Your task to perform on an android device: toggle pop-ups in chrome Image 0: 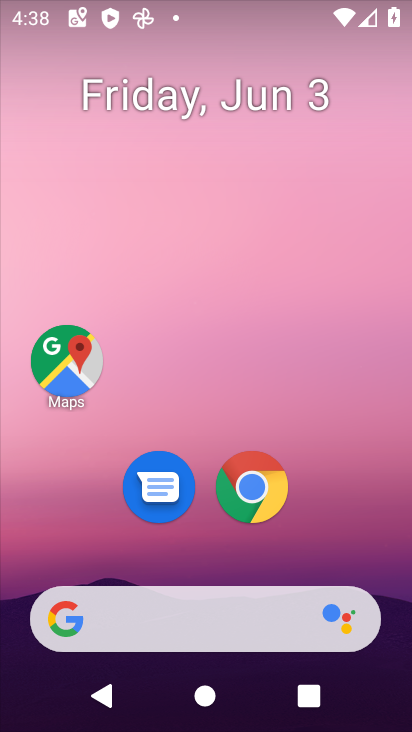
Step 0: click (322, 88)
Your task to perform on an android device: toggle pop-ups in chrome Image 1: 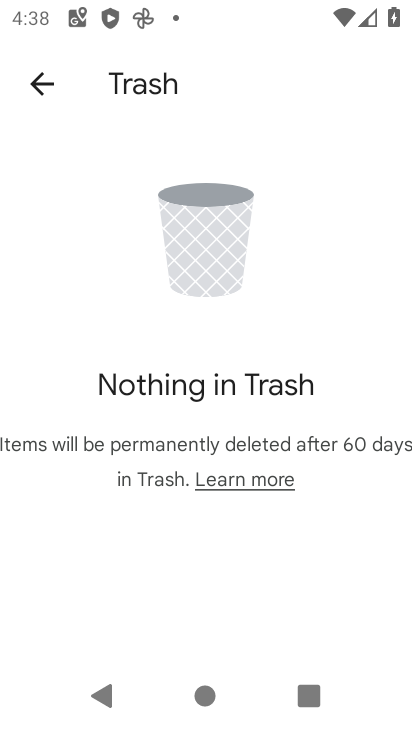
Step 1: drag from (203, 569) to (251, 238)
Your task to perform on an android device: toggle pop-ups in chrome Image 2: 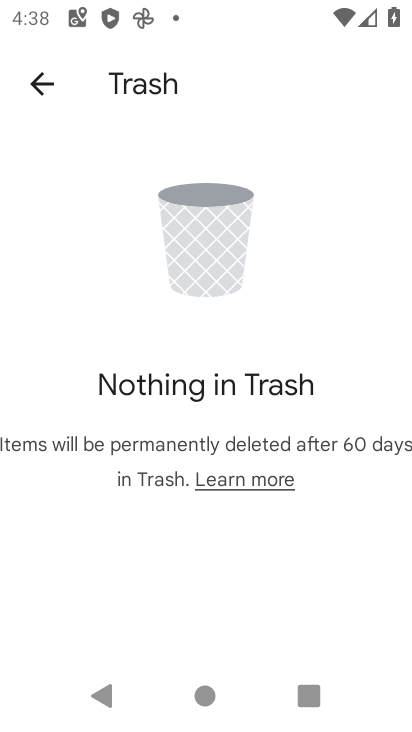
Step 2: press home button
Your task to perform on an android device: toggle pop-ups in chrome Image 3: 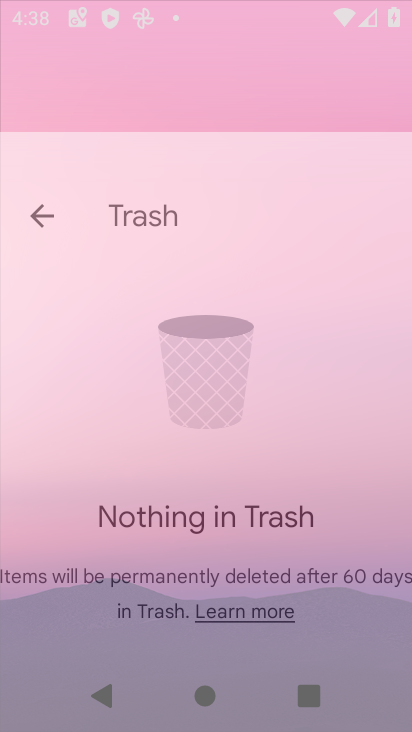
Step 3: drag from (245, 539) to (306, 91)
Your task to perform on an android device: toggle pop-ups in chrome Image 4: 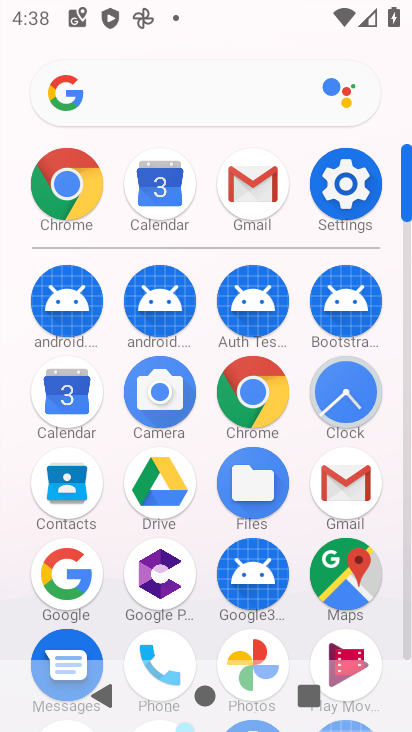
Step 4: click (78, 187)
Your task to perform on an android device: toggle pop-ups in chrome Image 5: 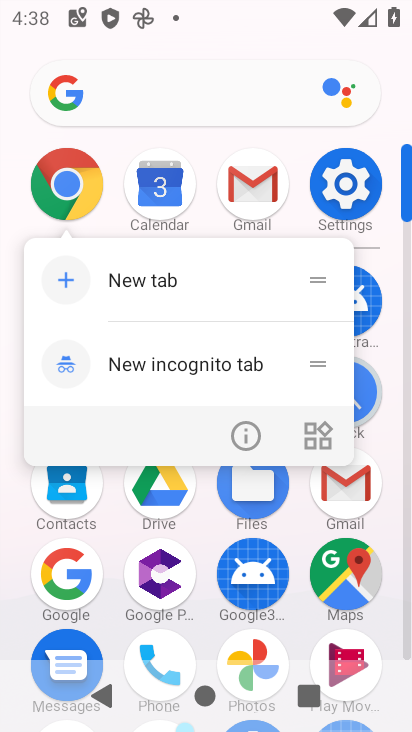
Step 5: click (243, 448)
Your task to perform on an android device: toggle pop-ups in chrome Image 6: 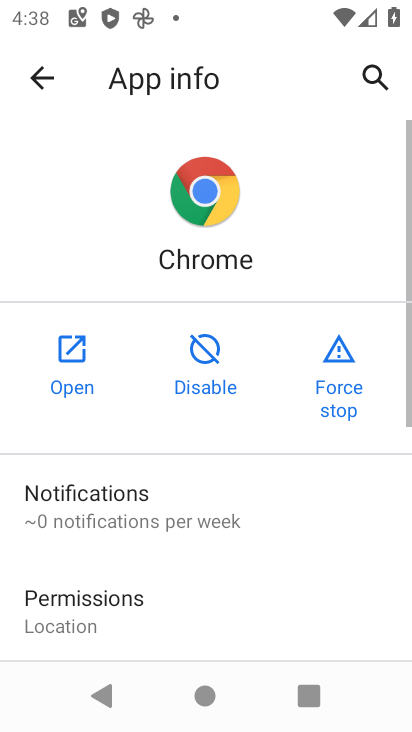
Step 6: click (75, 331)
Your task to perform on an android device: toggle pop-ups in chrome Image 7: 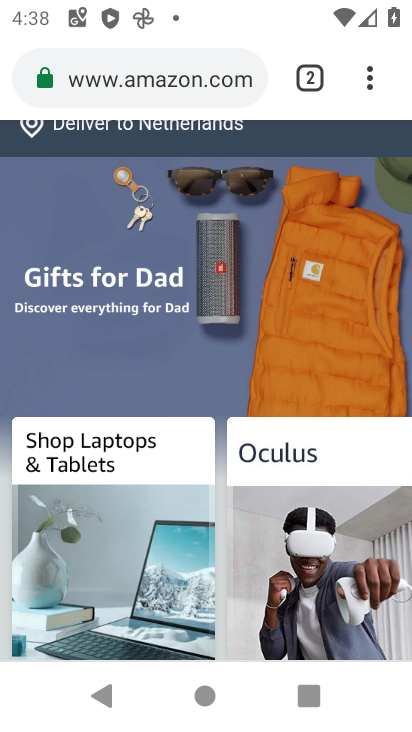
Step 7: click (399, 69)
Your task to perform on an android device: toggle pop-ups in chrome Image 8: 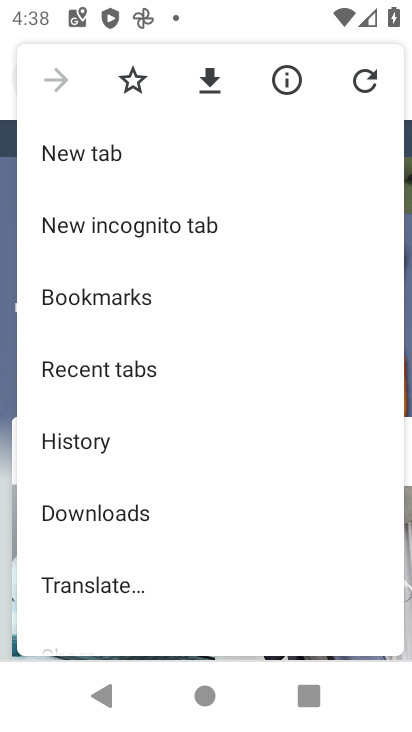
Step 8: drag from (220, 516) to (295, 171)
Your task to perform on an android device: toggle pop-ups in chrome Image 9: 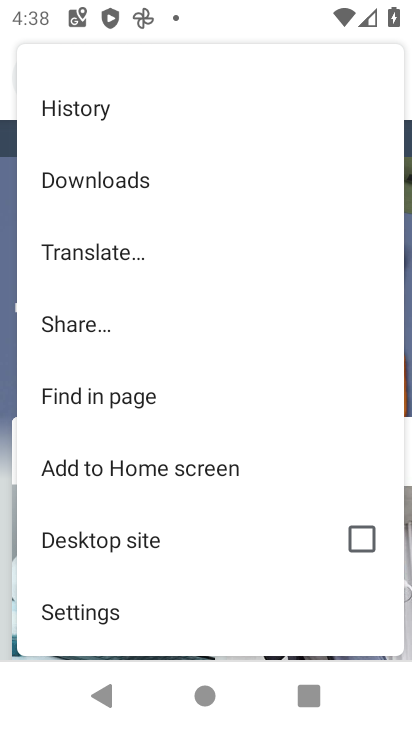
Step 9: click (95, 617)
Your task to perform on an android device: toggle pop-ups in chrome Image 10: 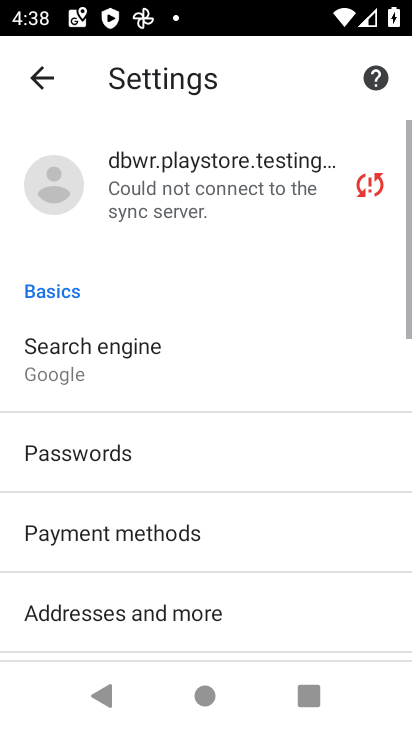
Step 10: drag from (225, 578) to (292, 195)
Your task to perform on an android device: toggle pop-ups in chrome Image 11: 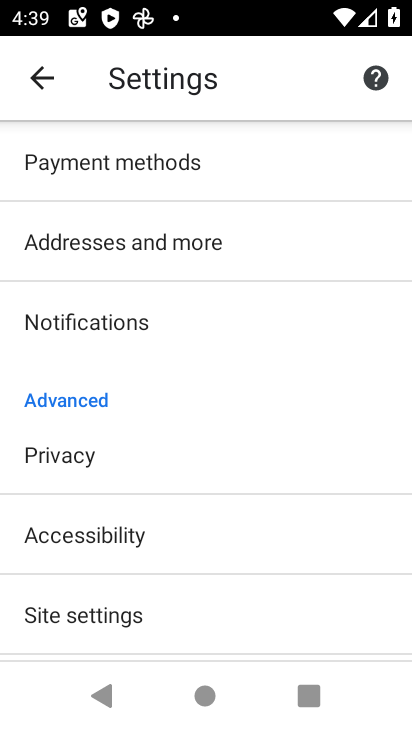
Step 11: click (107, 605)
Your task to perform on an android device: toggle pop-ups in chrome Image 12: 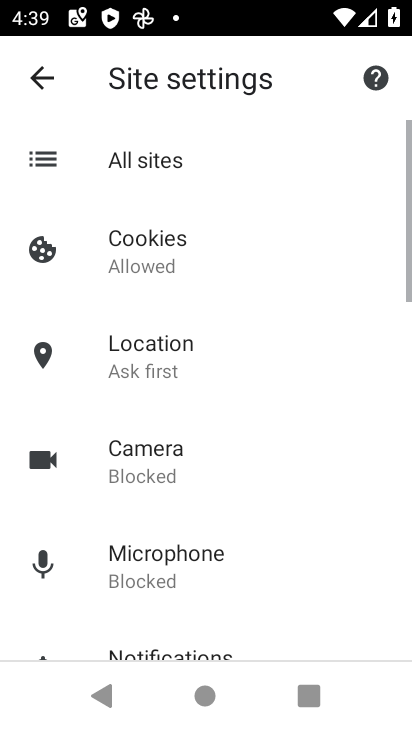
Step 12: drag from (244, 459) to (348, 81)
Your task to perform on an android device: toggle pop-ups in chrome Image 13: 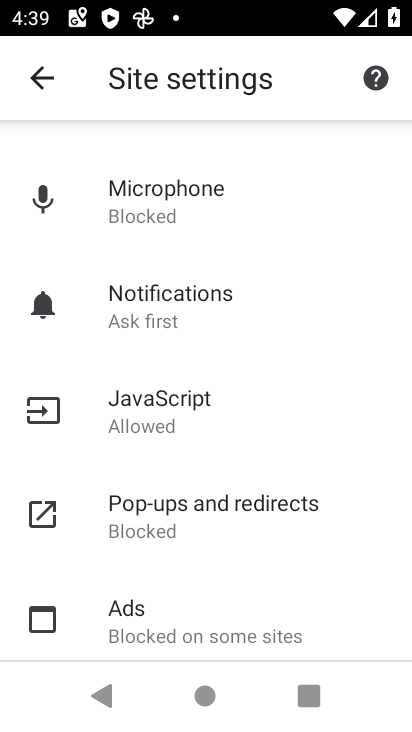
Step 13: click (140, 499)
Your task to perform on an android device: toggle pop-ups in chrome Image 14: 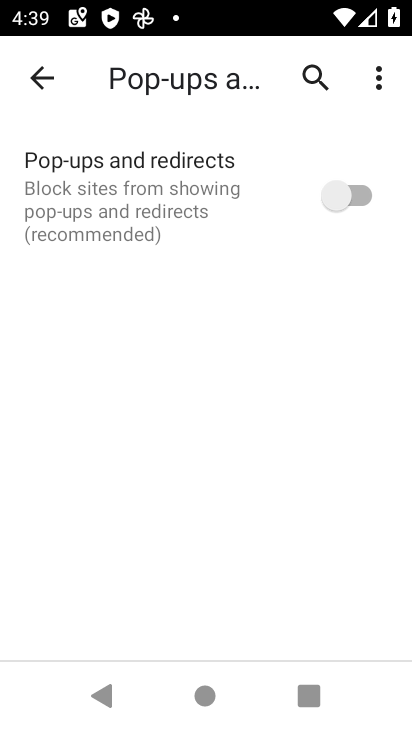
Step 14: task complete